Your task to perform on an android device: Open Google Maps and go to "Timeline" Image 0: 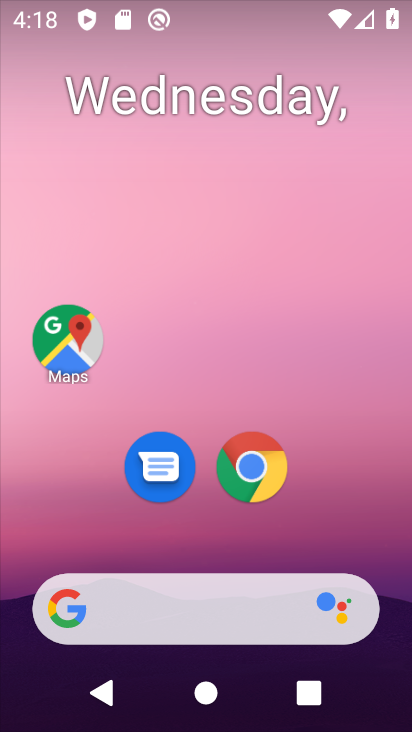
Step 0: drag from (323, 561) to (361, 0)
Your task to perform on an android device: Open Google Maps and go to "Timeline" Image 1: 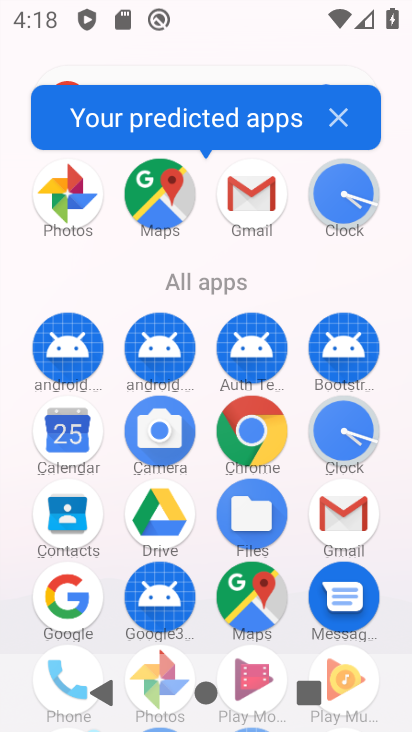
Step 1: click (144, 174)
Your task to perform on an android device: Open Google Maps and go to "Timeline" Image 2: 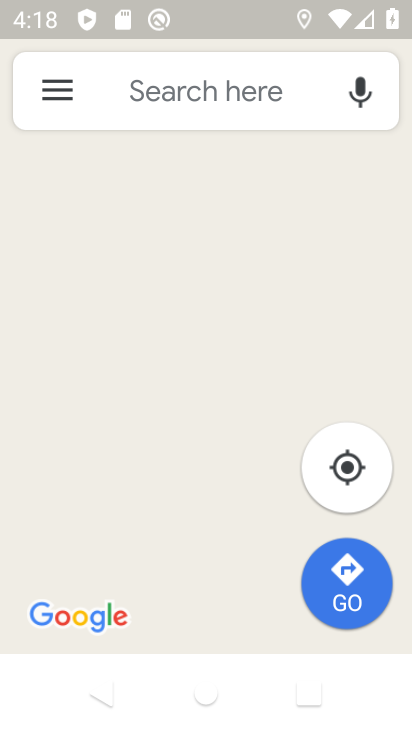
Step 2: click (55, 104)
Your task to perform on an android device: Open Google Maps and go to "Timeline" Image 3: 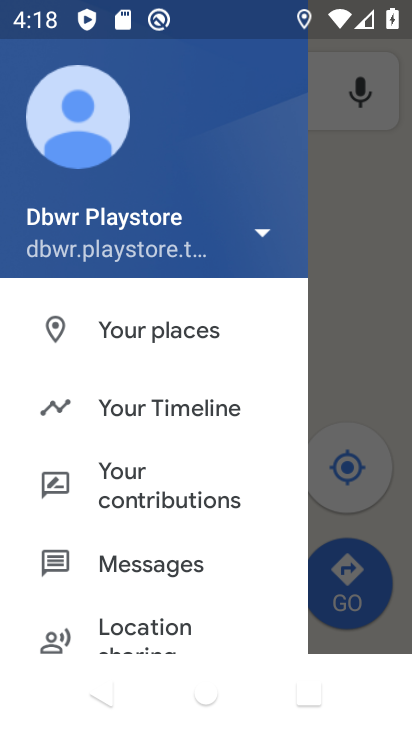
Step 3: click (137, 408)
Your task to perform on an android device: Open Google Maps and go to "Timeline" Image 4: 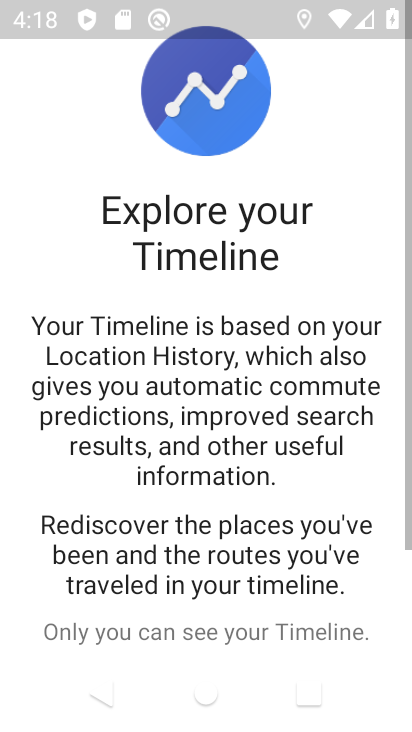
Step 4: task complete